Your task to perform on an android device: find photos in the google photos app Image 0: 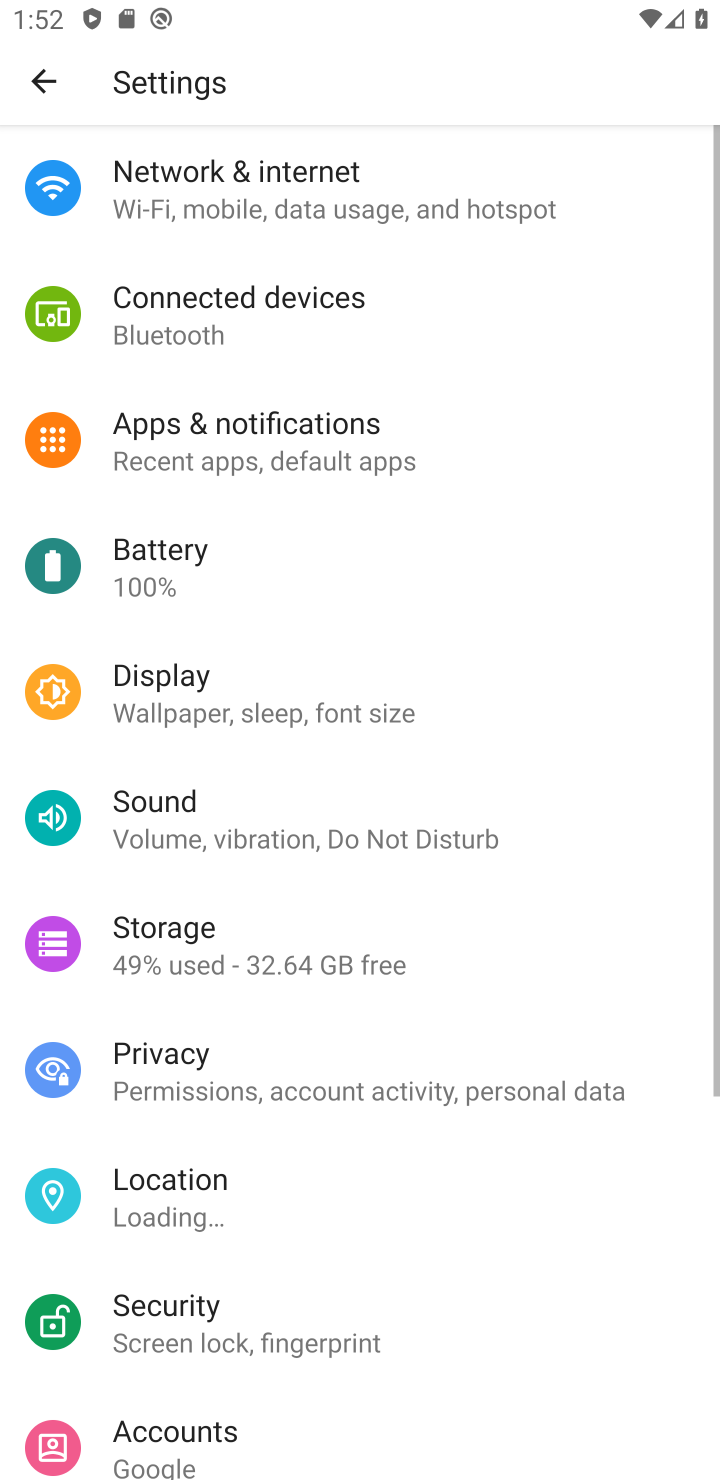
Step 0: press home button
Your task to perform on an android device: find photos in the google photos app Image 1: 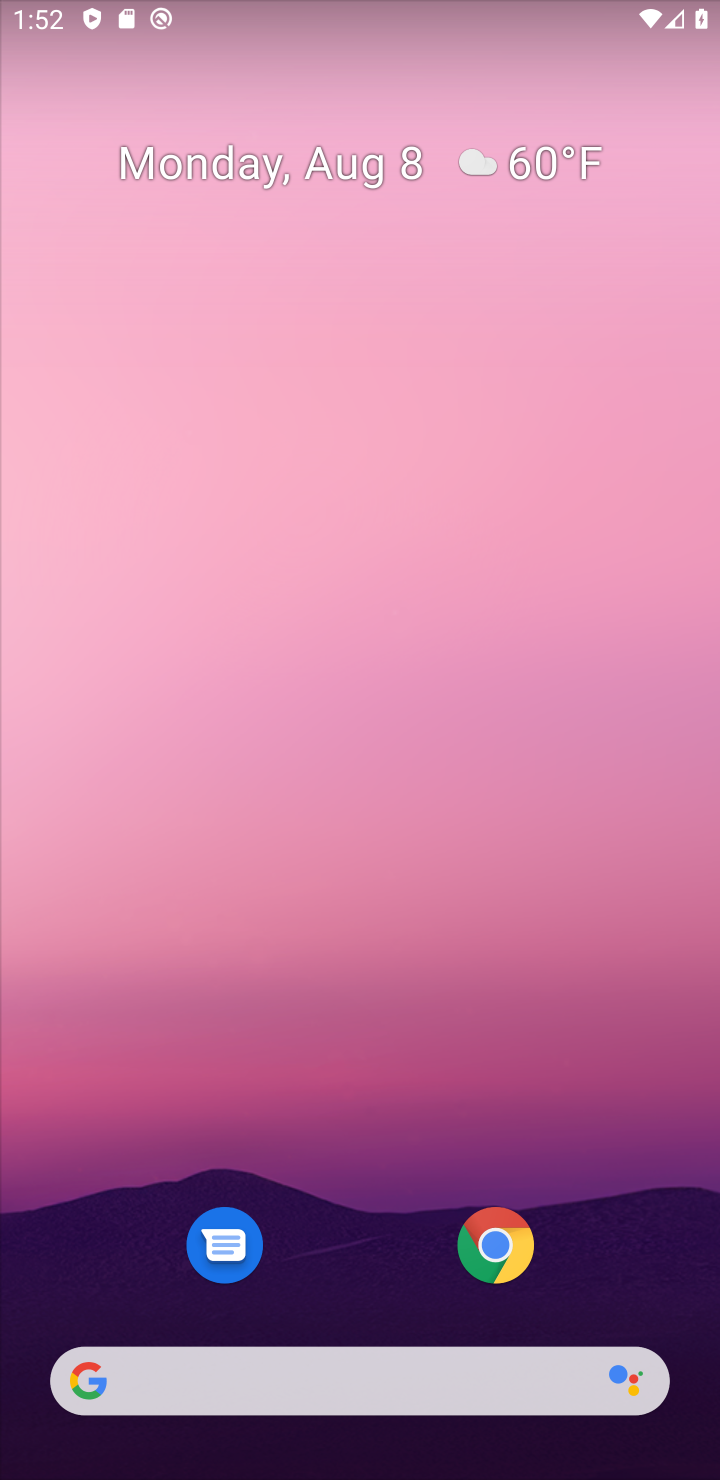
Step 1: drag from (387, 1069) to (527, 113)
Your task to perform on an android device: find photos in the google photos app Image 2: 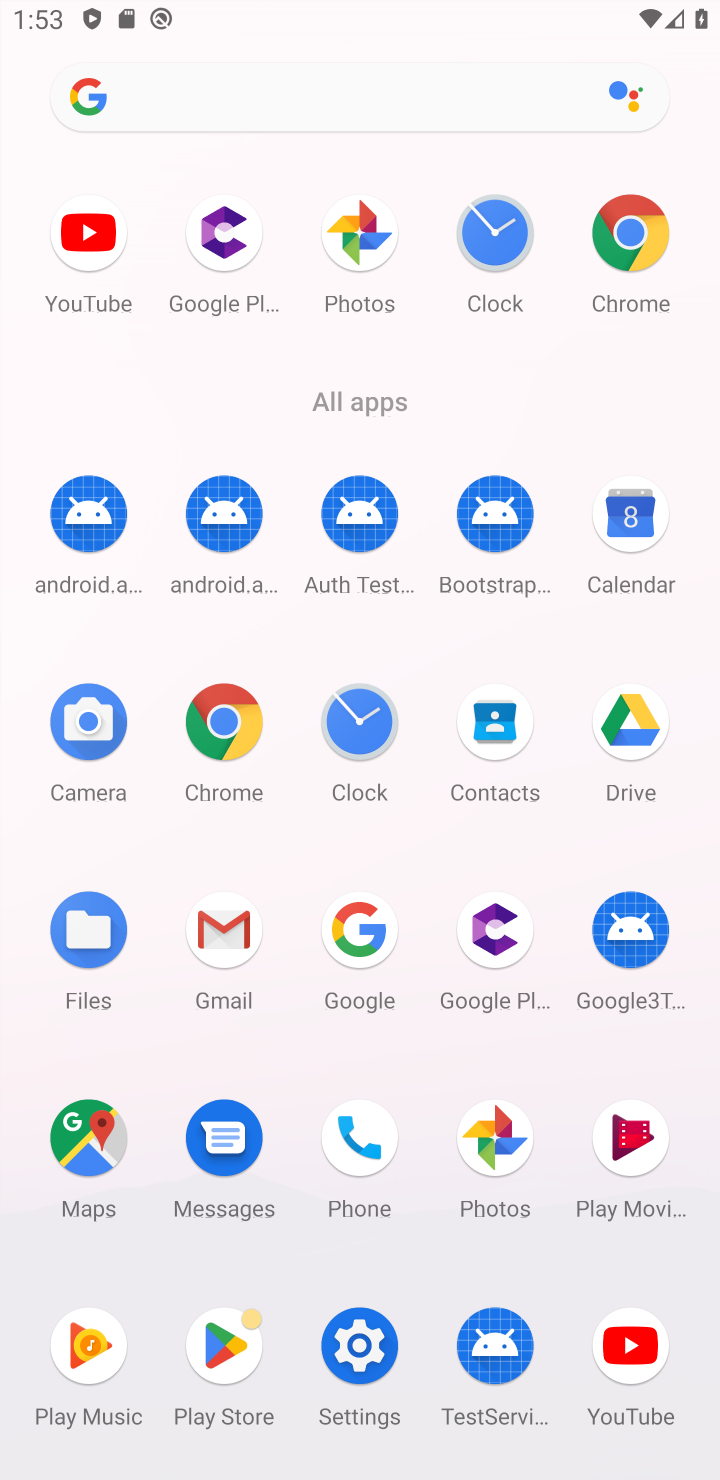
Step 2: click (360, 233)
Your task to perform on an android device: find photos in the google photos app Image 3: 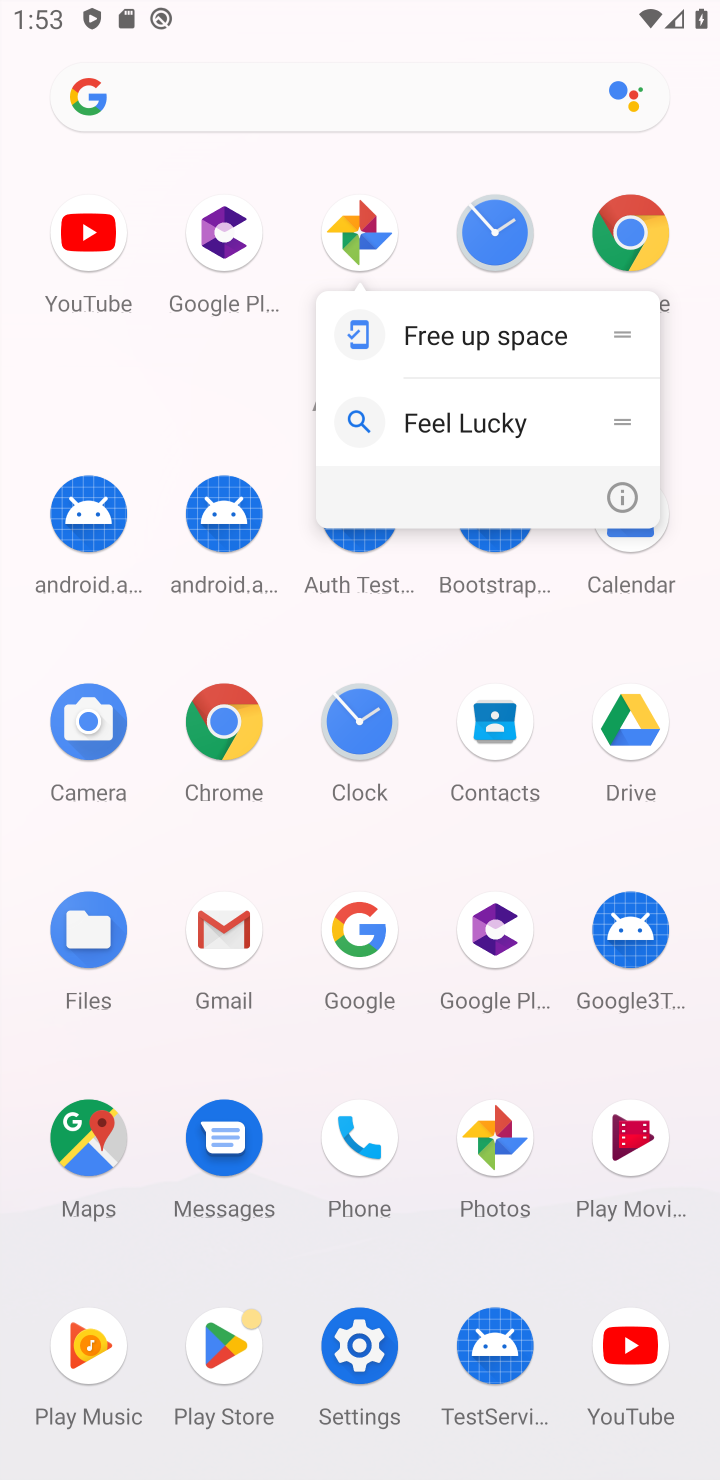
Step 3: click (360, 233)
Your task to perform on an android device: find photos in the google photos app Image 4: 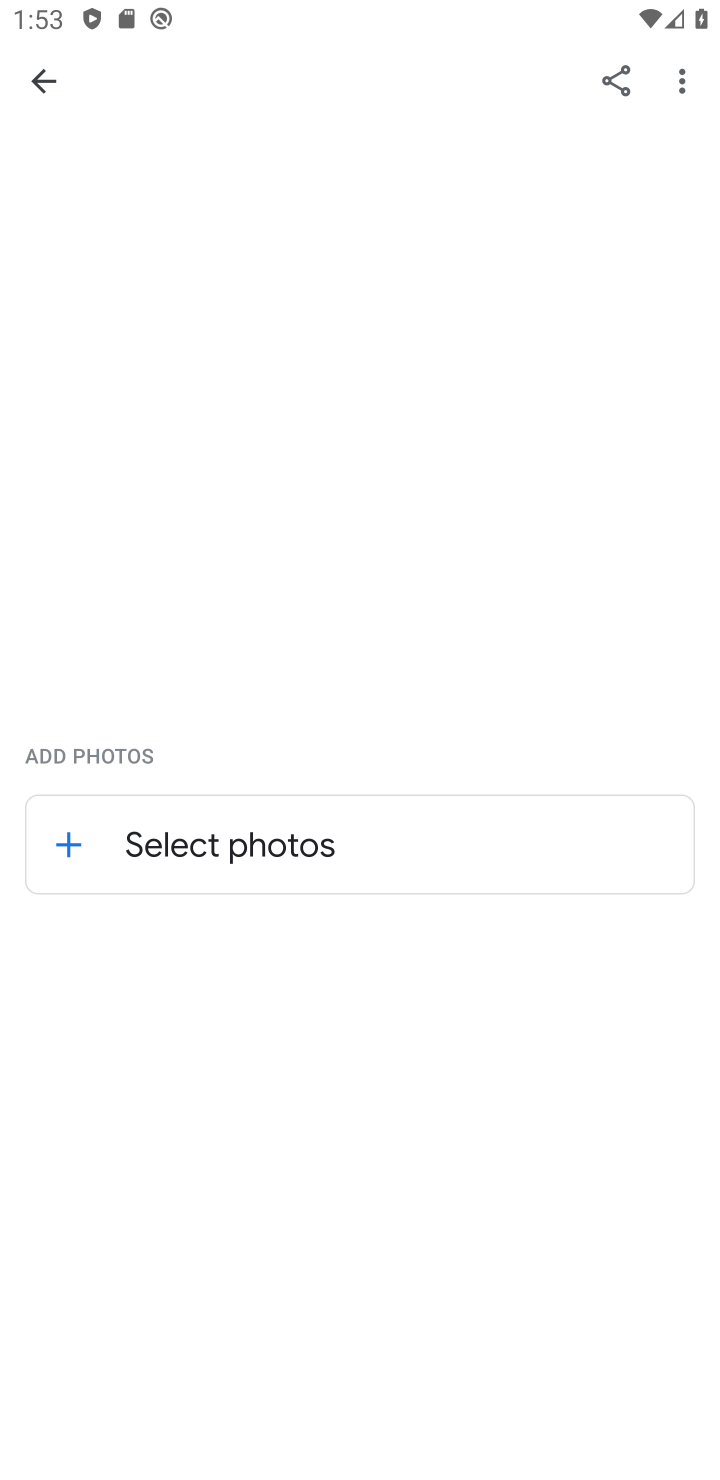
Step 4: click (37, 72)
Your task to perform on an android device: find photos in the google photos app Image 5: 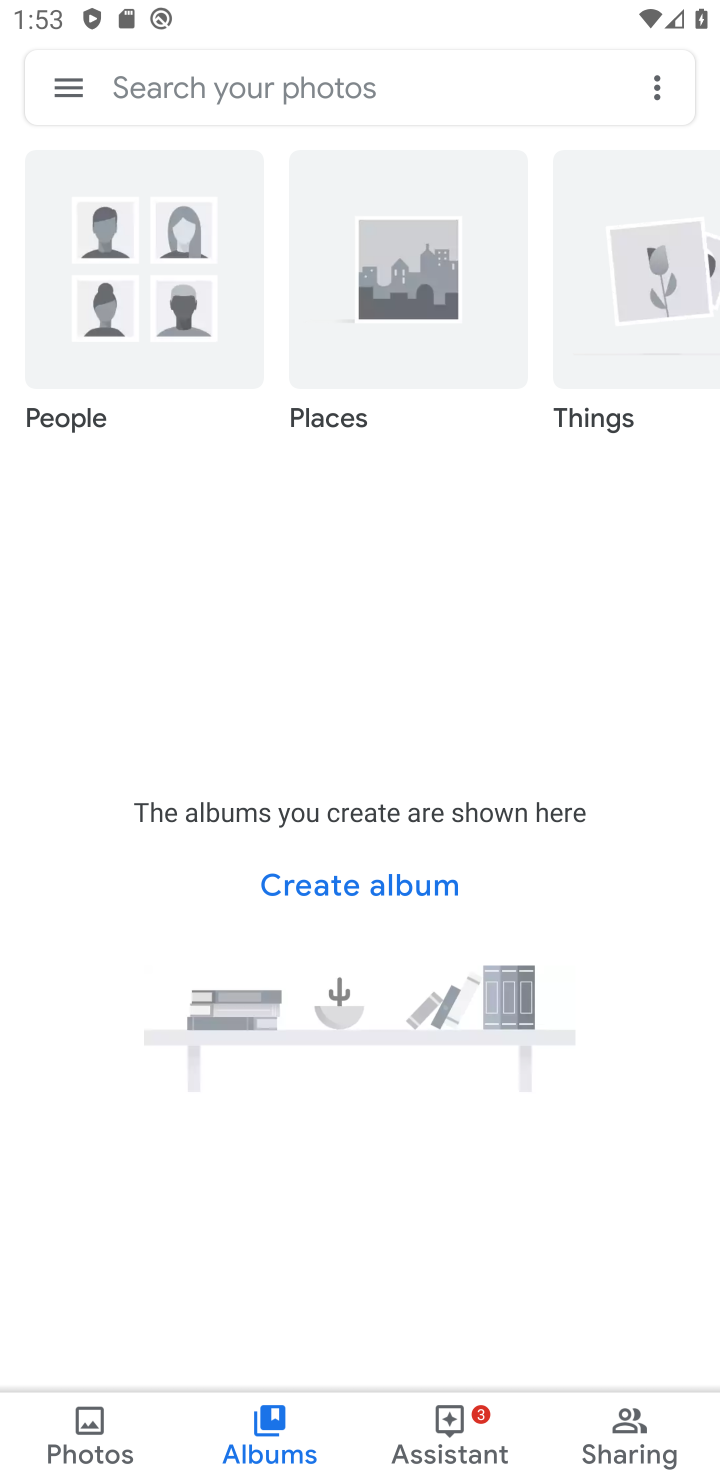
Step 5: click (88, 1414)
Your task to perform on an android device: find photos in the google photos app Image 6: 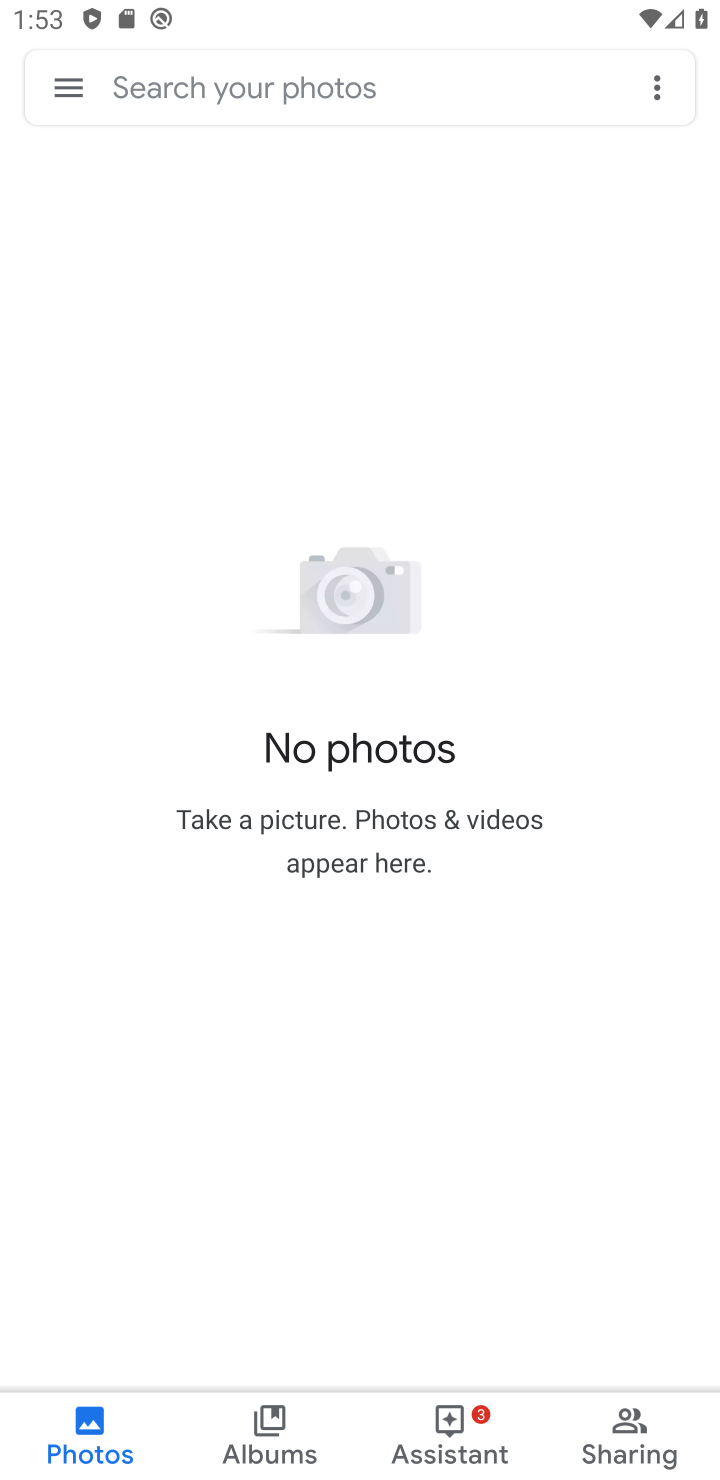
Step 6: click (252, 83)
Your task to perform on an android device: find photos in the google photos app Image 7: 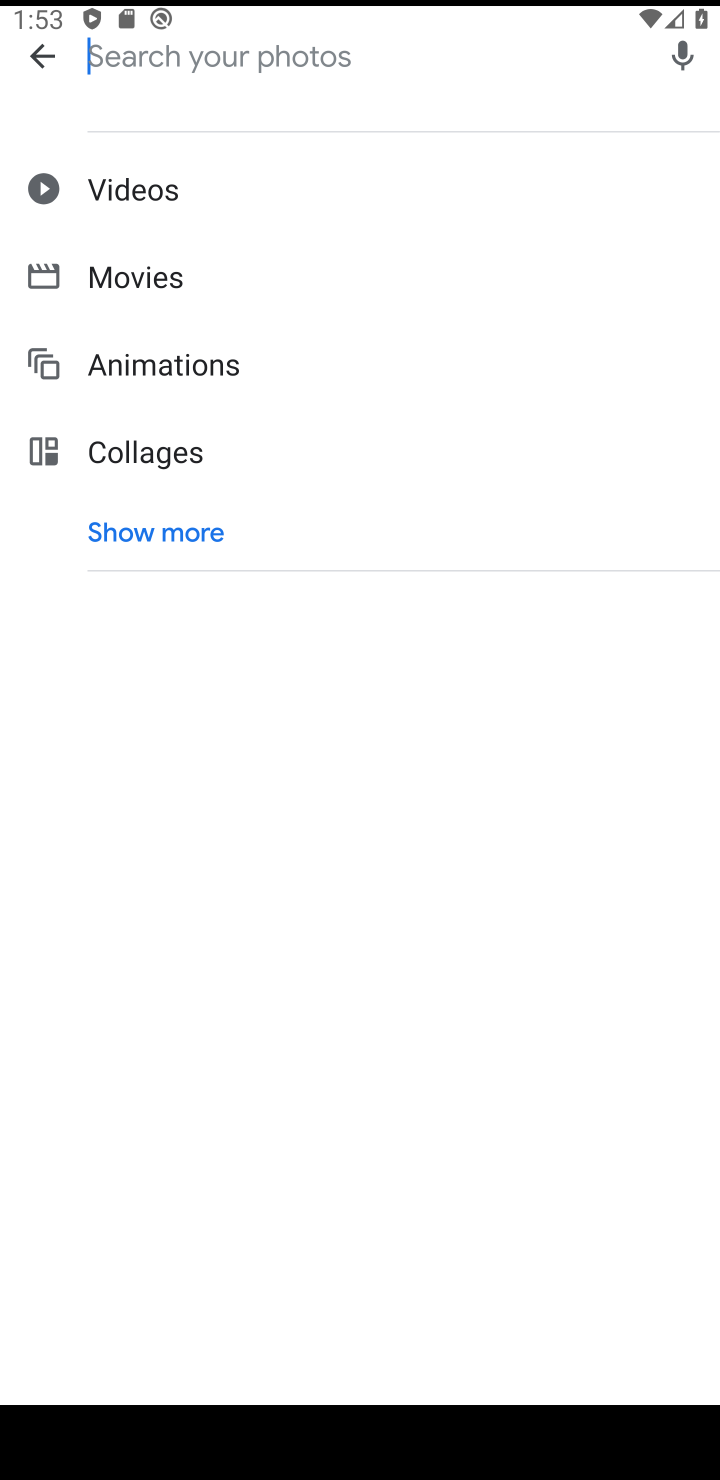
Step 7: task complete